Your task to perform on an android device: Show me recent news Image 0: 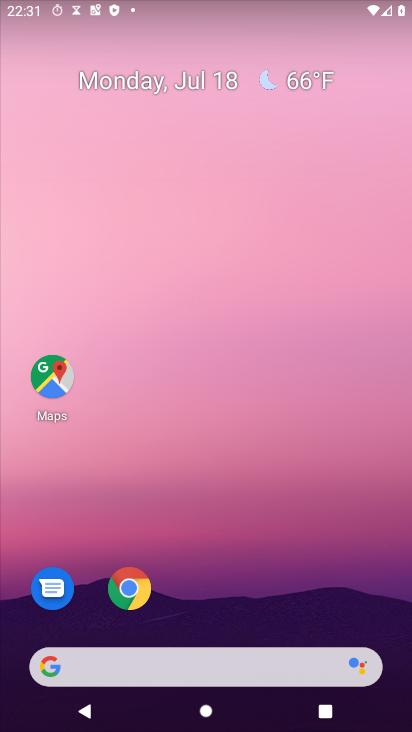
Step 0: click (190, 663)
Your task to perform on an android device: Show me recent news Image 1: 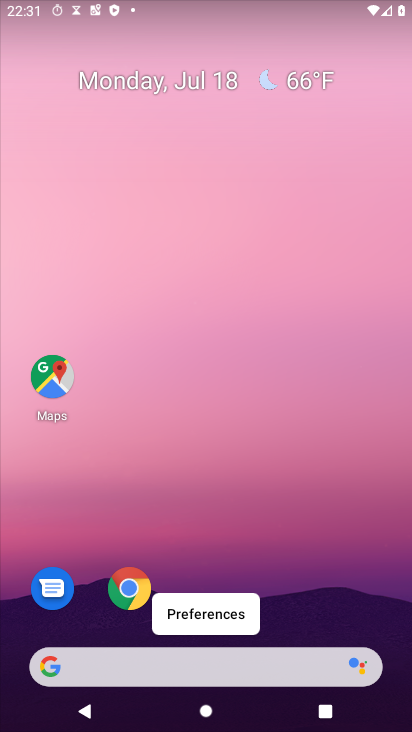
Step 1: click (125, 672)
Your task to perform on an android device: Show me recent news Image 2: 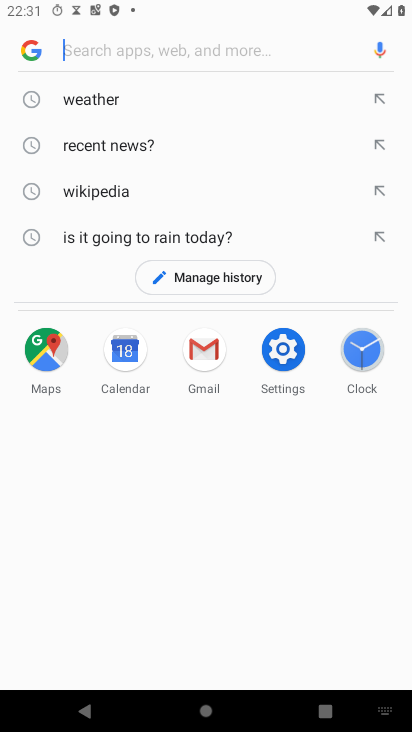
Step 2: click (112, 147)
Your task to perform on an android device: Show me recent news Image 3: 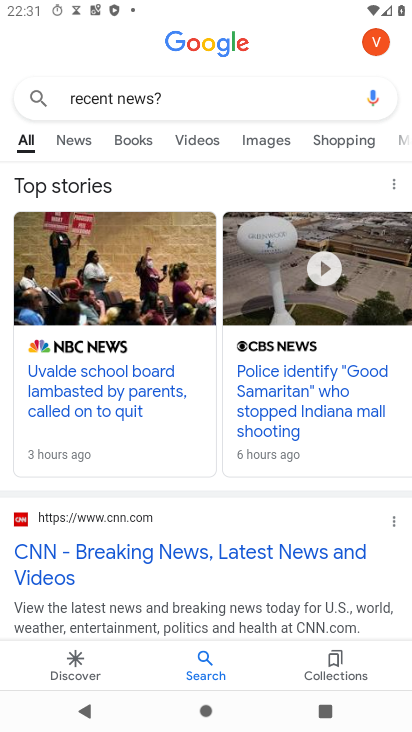
Step 3: click (75, 142)
Your task to perform on an android device: Show me recent news Image 4: 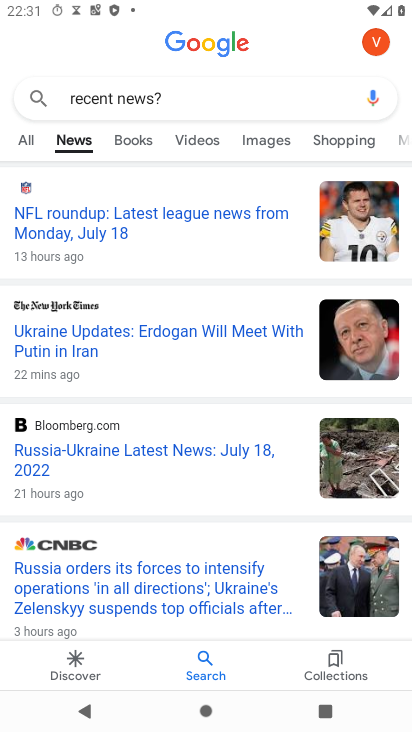
Step 4: task complete